Your task to perform on an android device: Open the Play Movies app and select the watchlist tab. Image 0: 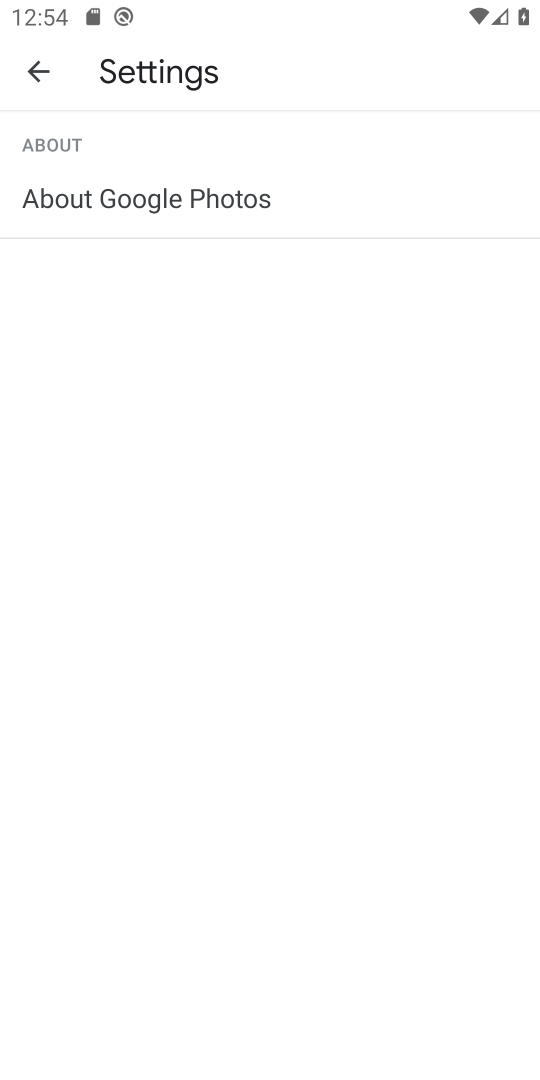
Step 0: press home button
Your task to perform on an android device: Open the Play Movies app and select the watchlist tab. Image 1: 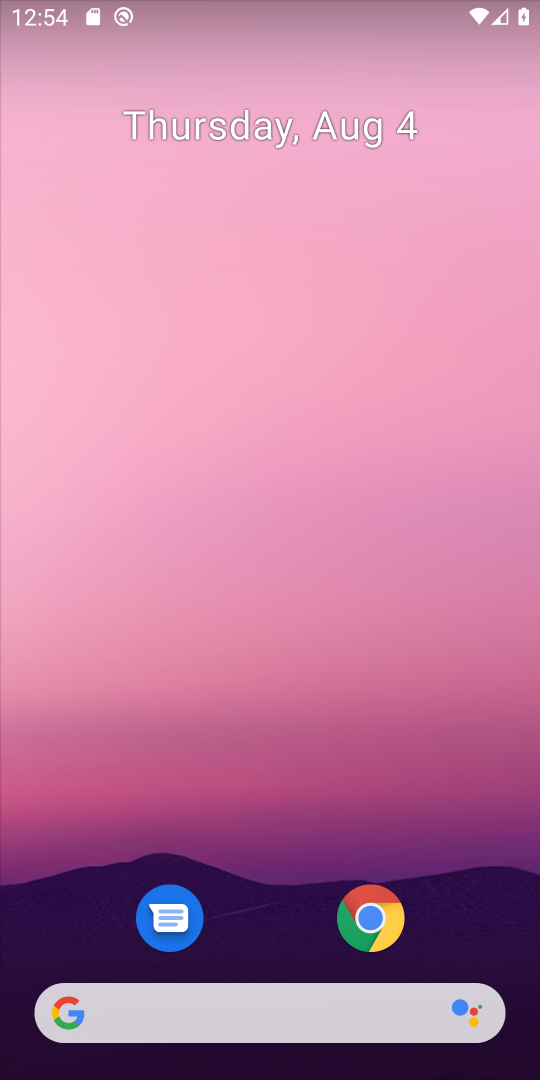
Step 1: drag from (241, 927) to (237, 321)
Your task to perform on an android device: Open the Play Movies app and select the watchlist tab. Image 2: 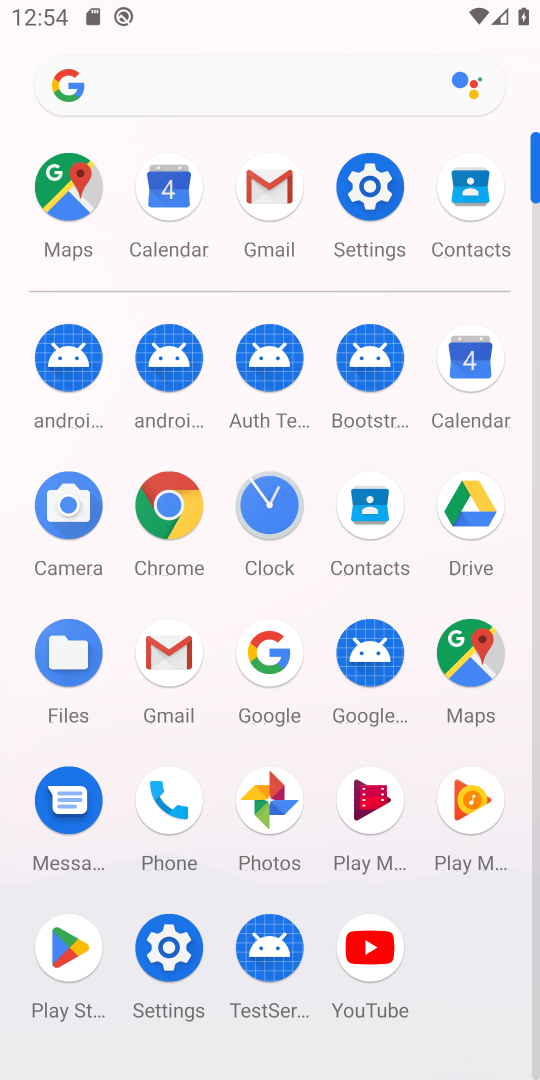
Step 2: click (382, 817)
Your task to perform on an android device: Open the Play Movies app and select the watchlist tab. Image 3: 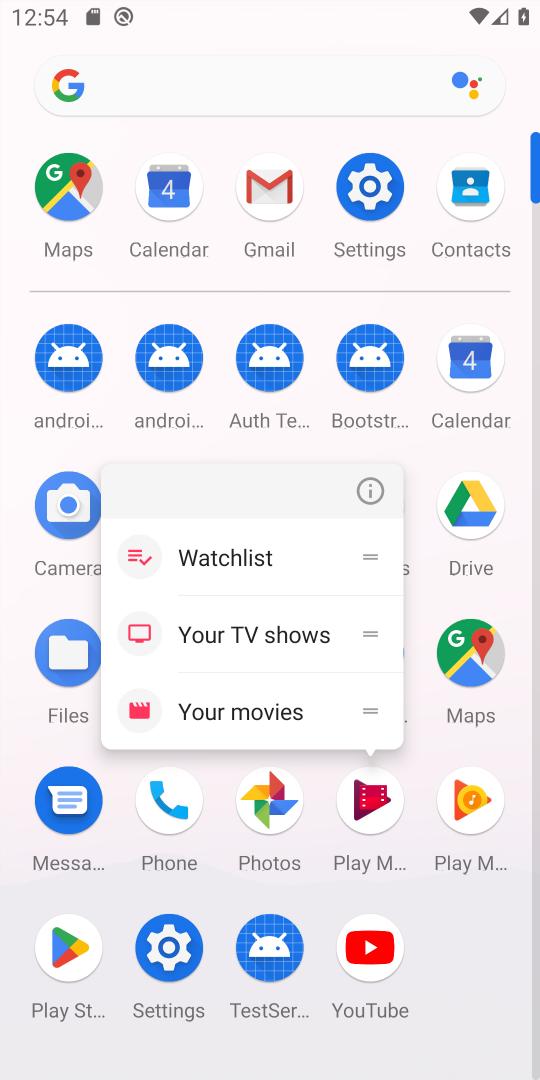
Step 3: click (382, 817)
Your task to perform on an android device: Open the Play Movies app and select the watchlist tab. Image 4: 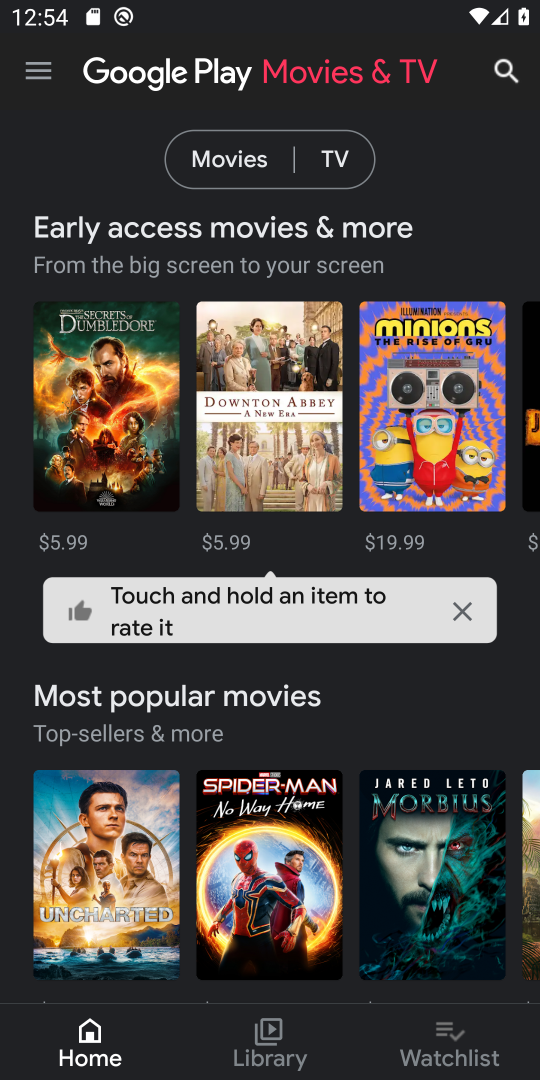
Step 4: click (472, 1064)
Your task to perform on an android device: Open the Play Movies app and select the watchlist tab. Image 5: 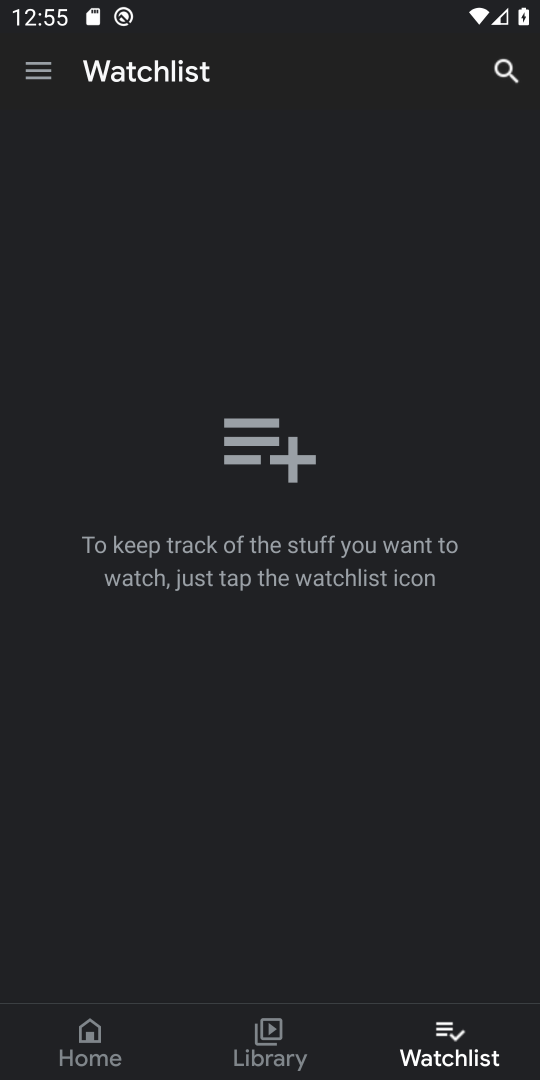
Step 5: task complete